Your task to perform on an android device: make emails show in primary in the gmail app Image 0: 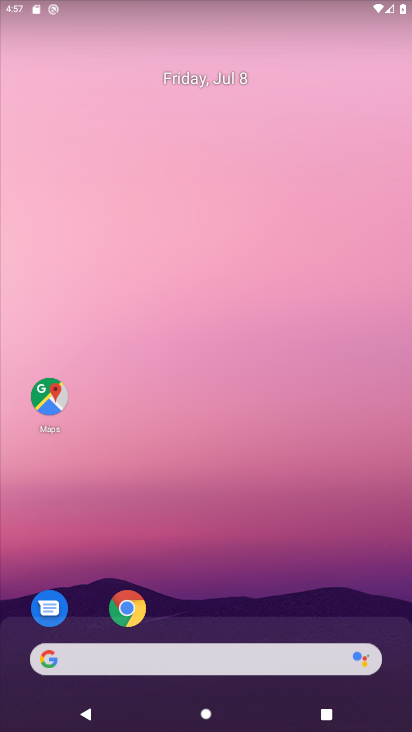
Step 0: drag from (337, 584) to (360, 31)
Your task to perform on an android device: make emails show in primary in the gmail app Image 1: 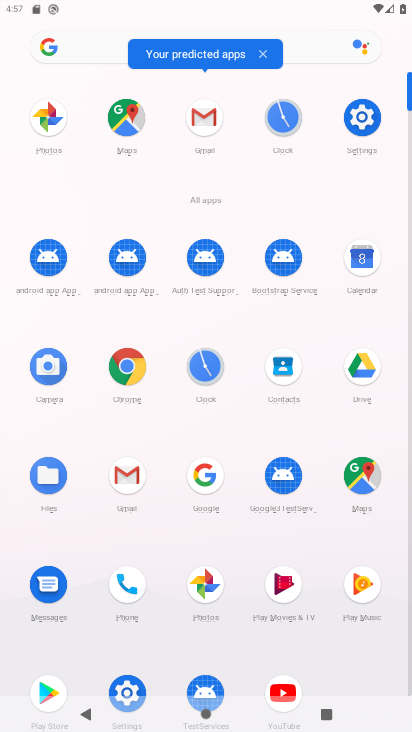
Step 1: click (130, 472)
Your task to perform on an android device: make emails show in primary in the gmail app Image 2: 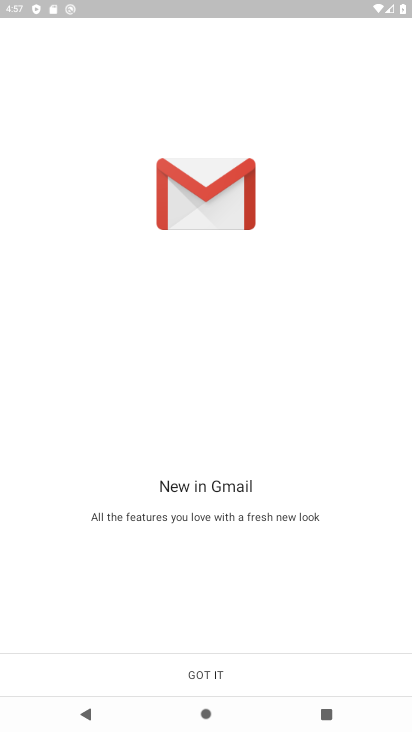
Step 2: click (332, 672)
Your task to perform on an android device: make emails show in primary in the gmail app Image 3: 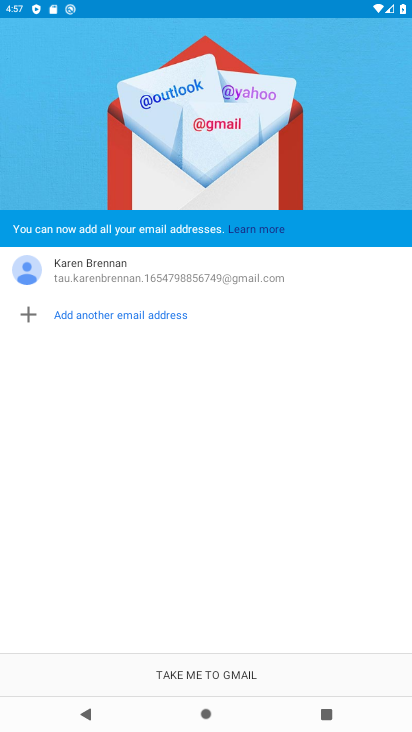
Step 3: click (321, 672)
Your task to perform on an android device: make emails show in primary in the gmail app Image 4: 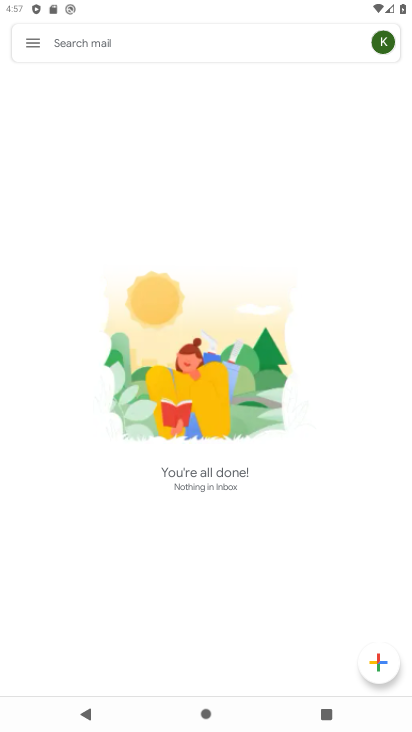
Step 4: click (37, 31)
Your task to perform on an android device: make emails show in primary in the gmail app Image 5: 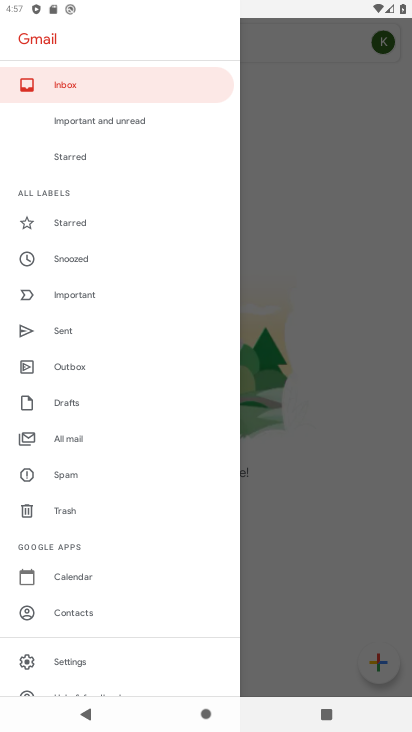
Step 5: click (105, 655)
Your task to perform on an android device: make emails show in primary in the gmail app Image 6: 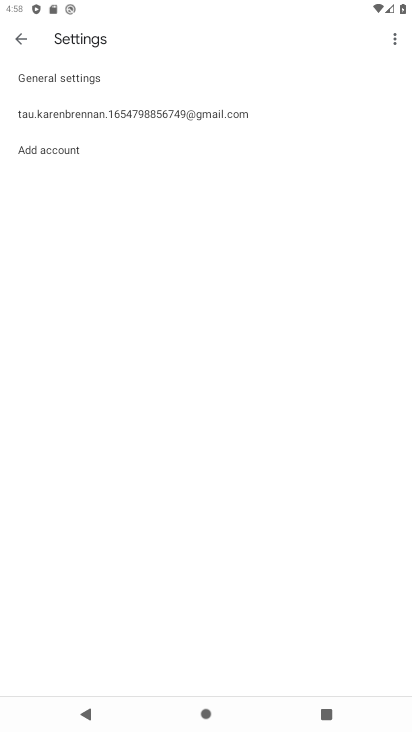
Step 6: click (47, 115)
Your task to perform on an android device: make emails show in primary in the gmail app Image 7: 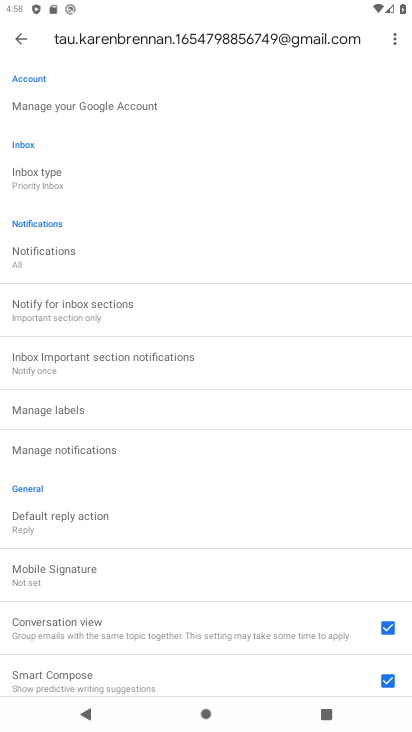
Step 7: click (56, 170)
Your task to perform on an android device: make emails show in primary in the gmail app Image 8: 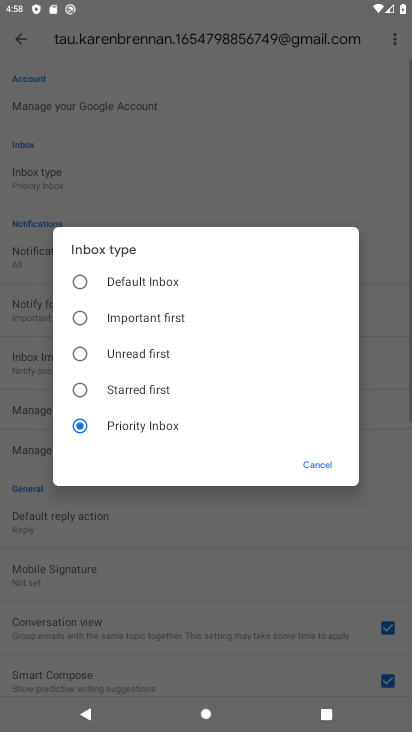
Step 8: click (121, 268)
Your task to perform on an android device: make emails show in primary in the gmail app Image 9: 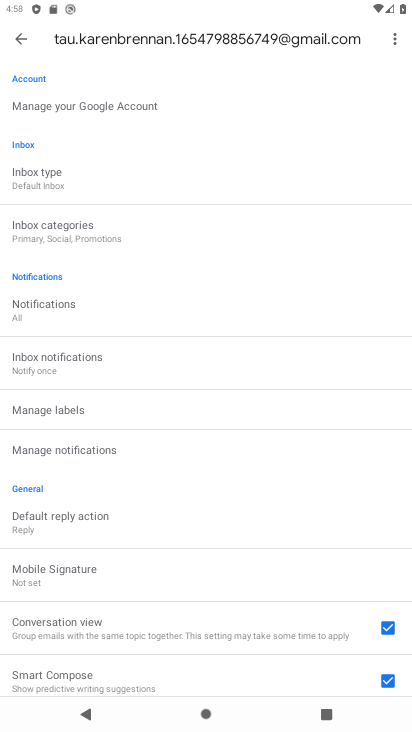
Step 9: press back button
Your task to perform on an android device: make emails show in primary in the gmail app Image 10: 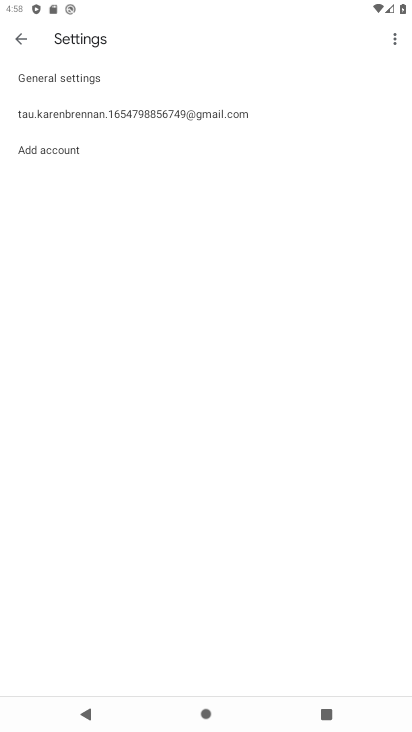
Step 10: press back button
Your task to perform on an android device: make emails show in primary in the gmail app Image 11: 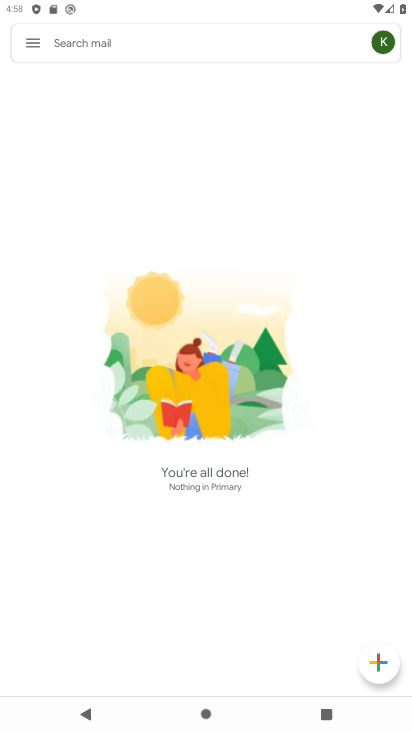
Step 11: click (25, 42)
Your task to perform on an android device: make emails show in primary in the gmail app Image 12: 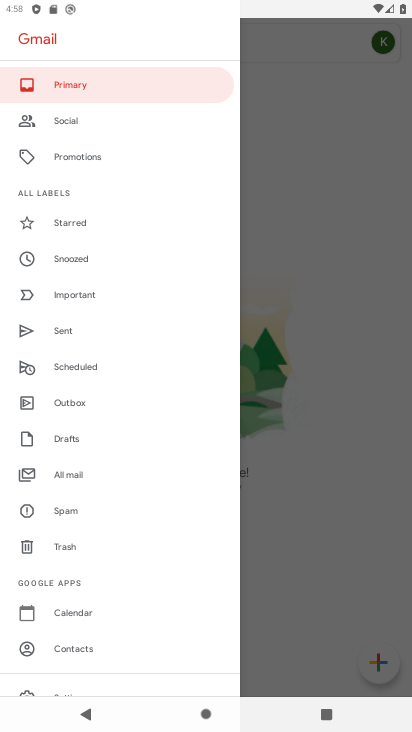
Step 12: task complete